Your task to perform on an android device: Open Google Maps and go to "Timeline" Image 0: 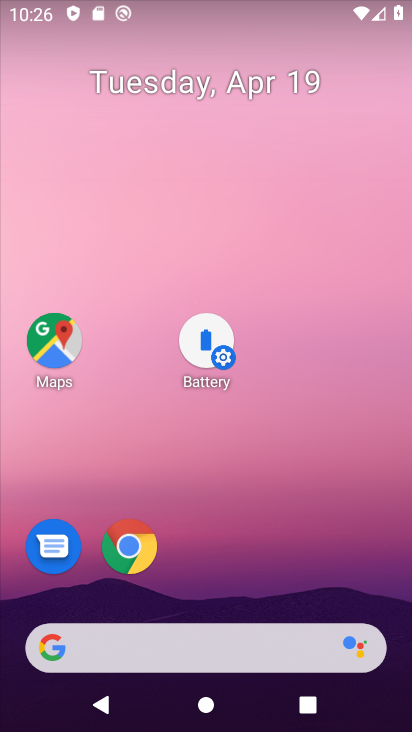
Step 0: click (224, 513)
Your task to perform on an android device: Open Google Maps and go to "Timeline" Image 1: 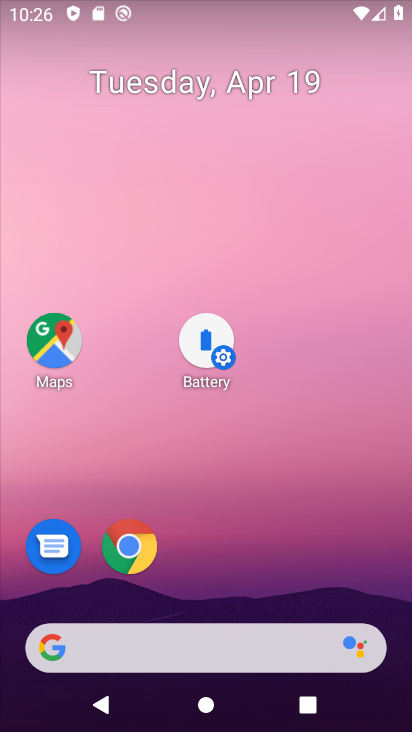
Step 1: click (66, 348)
Your task to perform on an android device: Open Google Maps and go to "Timeline" Image 2: 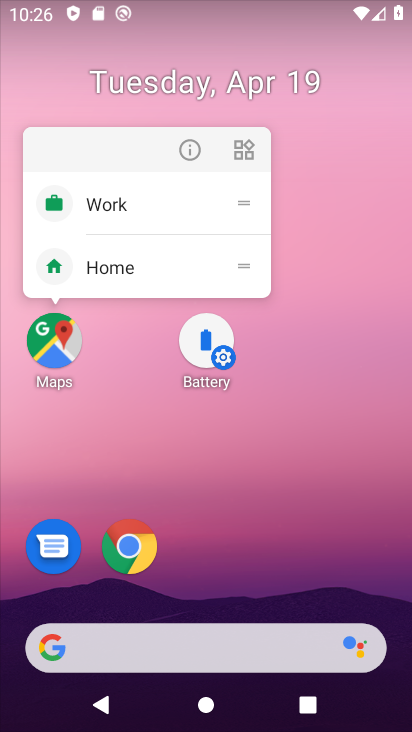
Step 2: click (59, 344)
Your task to perform on an android device: Open Google Maps and go to "Timeline" Image 3: 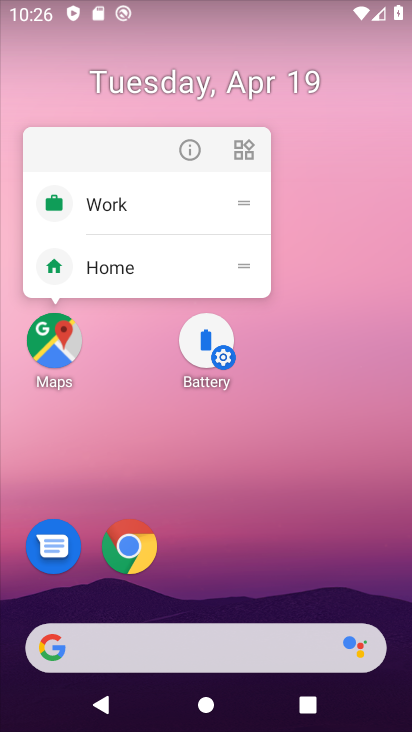
Step 3: click (54, 336)
Your task to perform on an android device: Open Google Maps and go to "Timeline" Image 4: 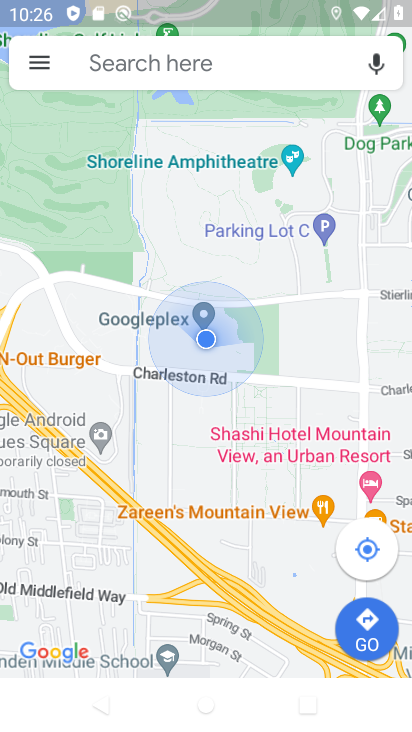
Step 4: click (39, 56)
Your task to perform on an android device: Open Google Maps and go to "Timeline" Image 5: 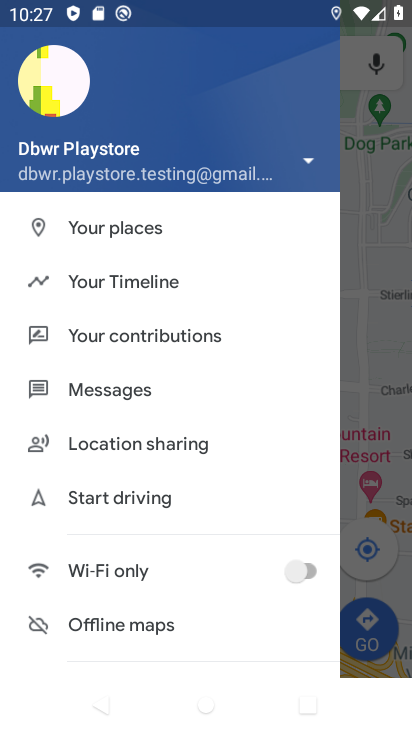
Step 5: click (122, 290)
Your task to perform on an android device: Open Google Maps and go to "Timeline" Image 6: 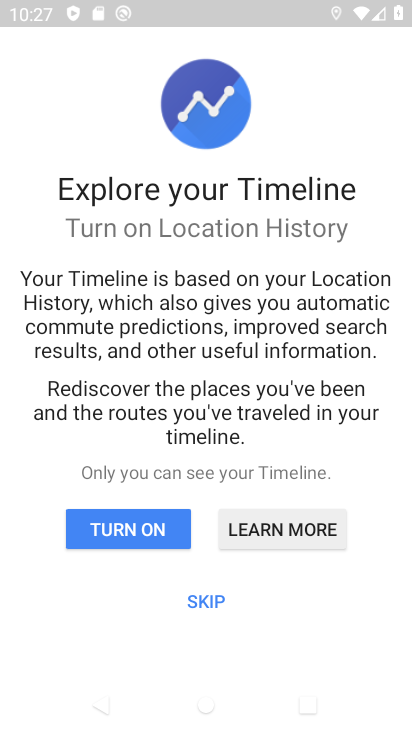
Step 6: click (196, 607)
Your task to perform on an android device: Open Google Maps and go to "Timeline" Image 7: 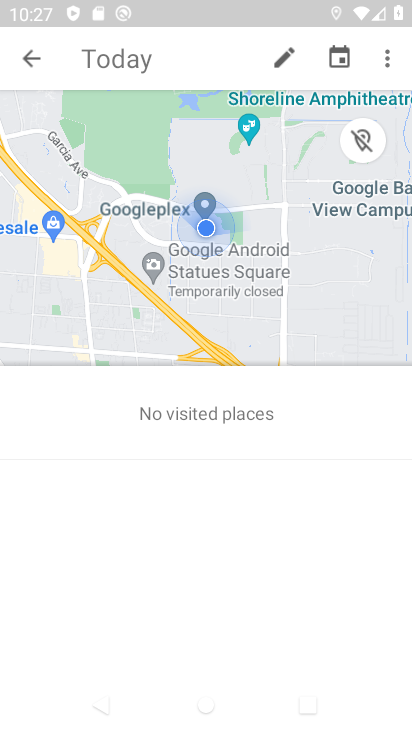
Step 7: task complete